Your task to perform on an android device: Open accessibility settings Image 0: 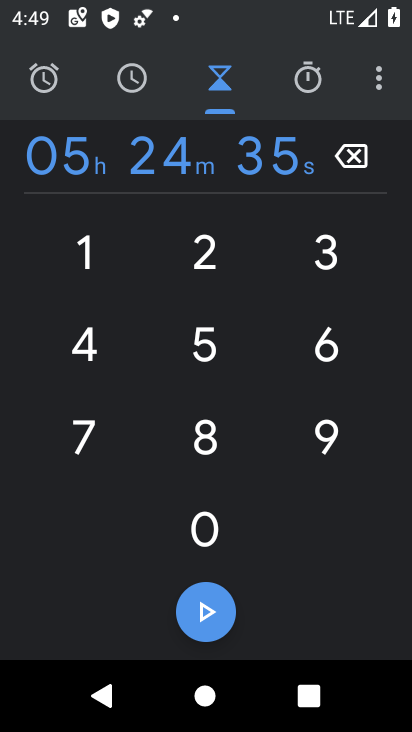
Step 0: press back button
Your task to perform on an android device: Open accessibility settings Image 1: 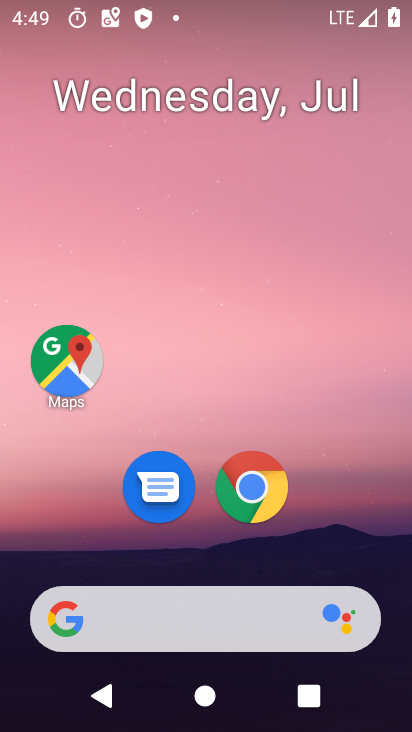
Step 1: drag from (166, 548) to (215, 44)
Your task to perform on an android device: Open accessibility settings Image 2: 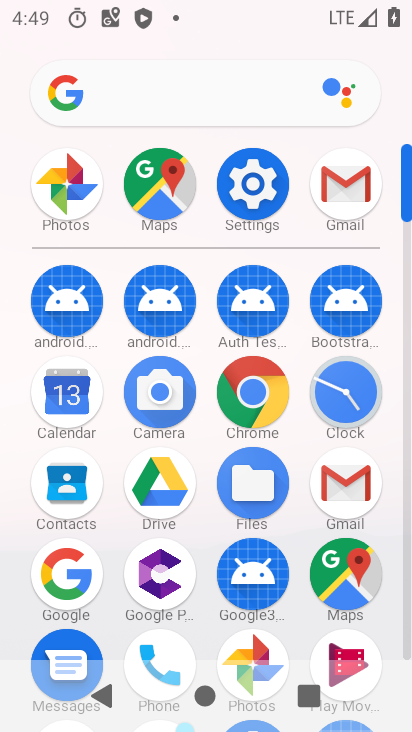
Step 2: click (254, 194)
Your task to perform on an android device: Open accessibility settings Image 3: 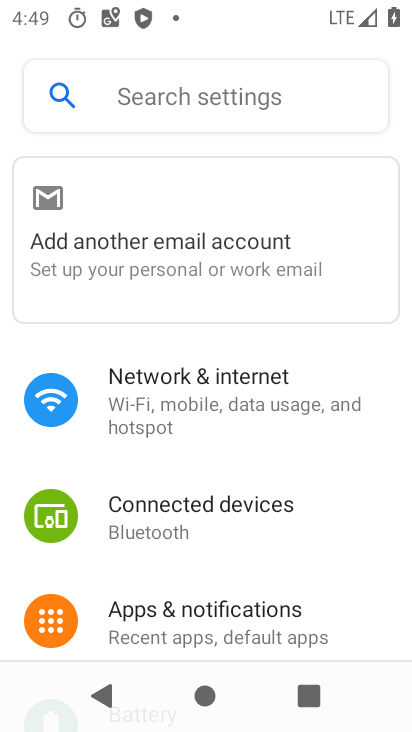
Step 3: drag from (157, 642) to (273, 85)
Your task to perform on an android device: Open accessibility settings Image 4: 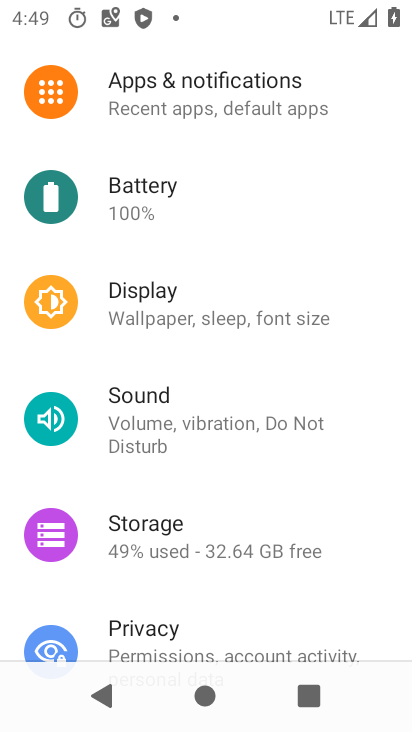
Step 4: drag from (191, 573) to (270, 63)
Your task to perform on an android device: Open accessibility settings Image 5: 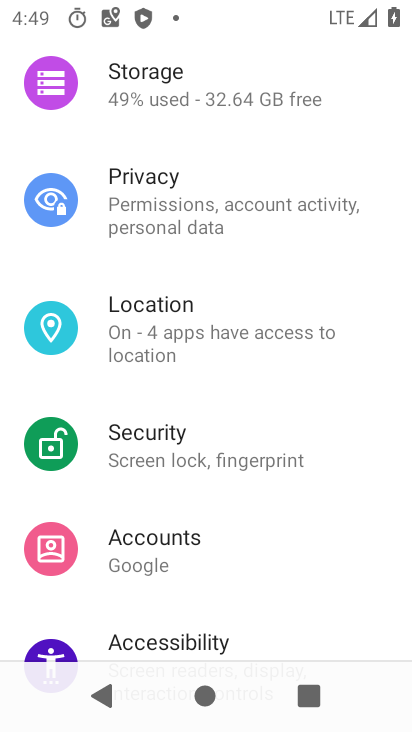
Step 5: click (186, 636)
Your task to perform on an android device: Open accessibility settings Image 6: 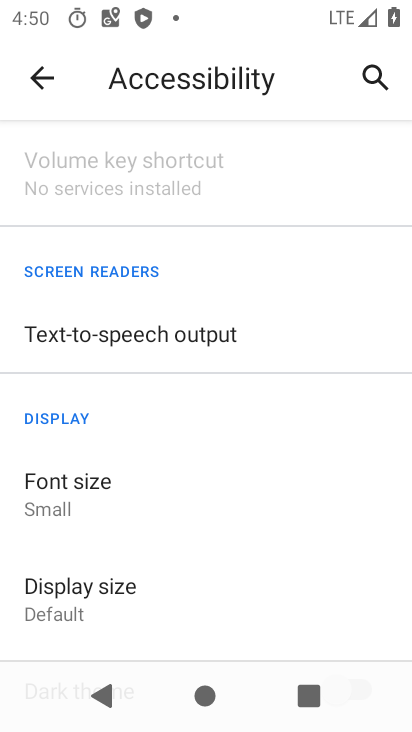
Step 6: task complete